Your task to perform on an android device: Go to Yahoo.com Image 0: 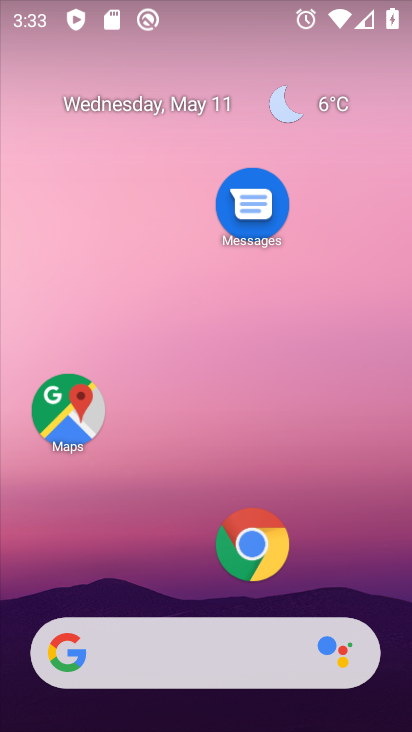
Step 0: click (265, 551)
Your task to perform on an android device: Go to Yahoo.com Image 1: 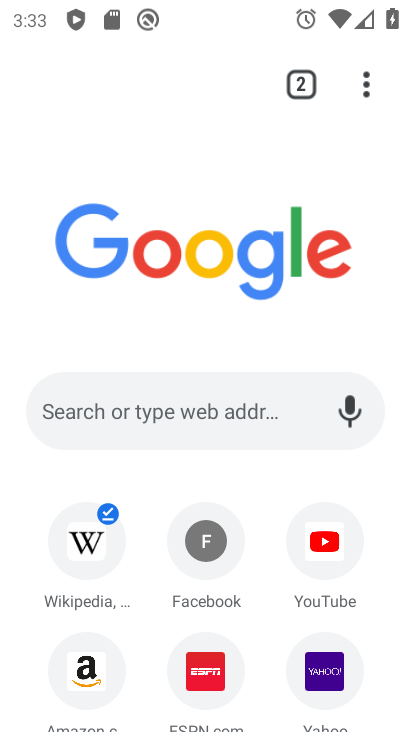
Step 1: click (322, 671)
Your task to perform on an android device: Go to Yahoo.com Image 2: 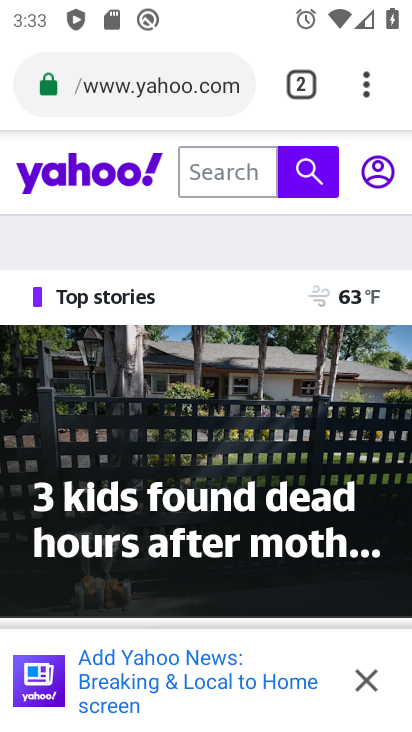
Step 2: task complete